Your task to perform on an android device: Open Chrome and go to settings Image 0: 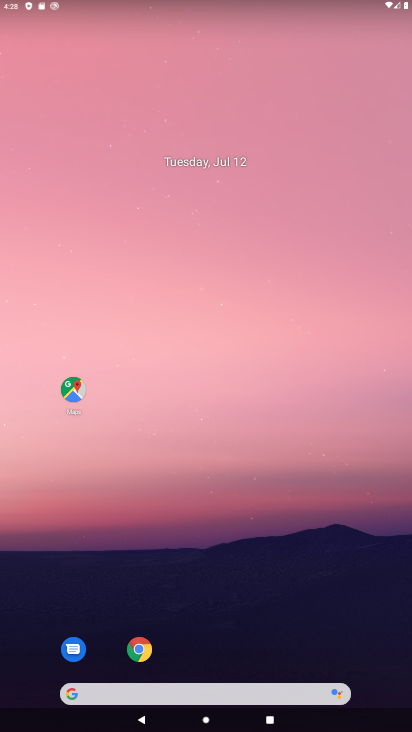
Step 0: press home button
Your task to perform on an android device: Open Chrome and go to settings Image 1: 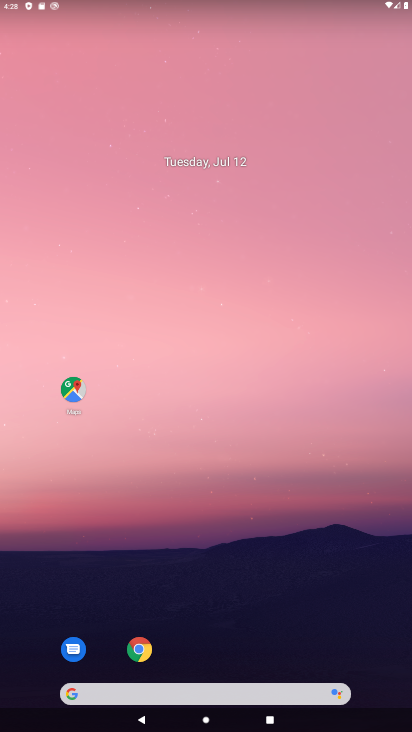
Step 1: click (141, 651)
Your task to perform on an android device: Open Chrome and go to settings Image 2: 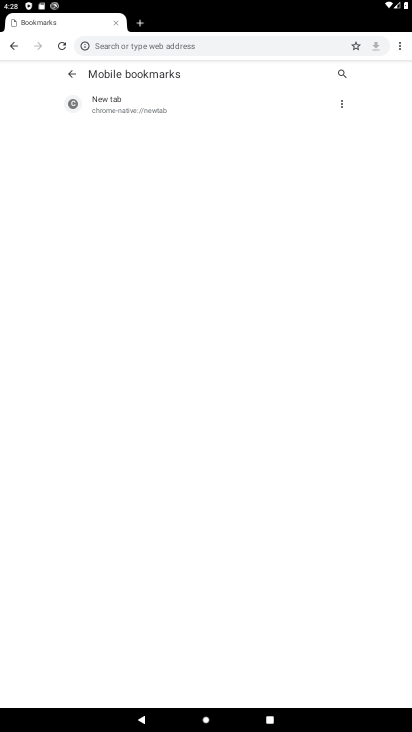
Step 2: click (399, 47)
Your task to perform on an android device: Open Chrome and go to settings Image 3: 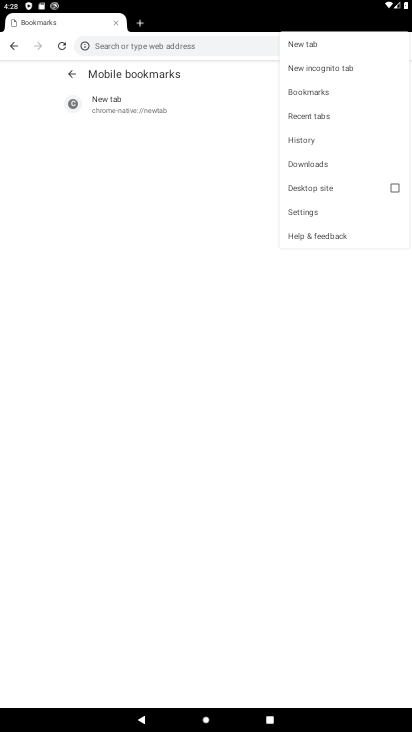
Step 3: click (310, 216)
Your task to perform on an android device: Open Chrome and go to settings Image 4: 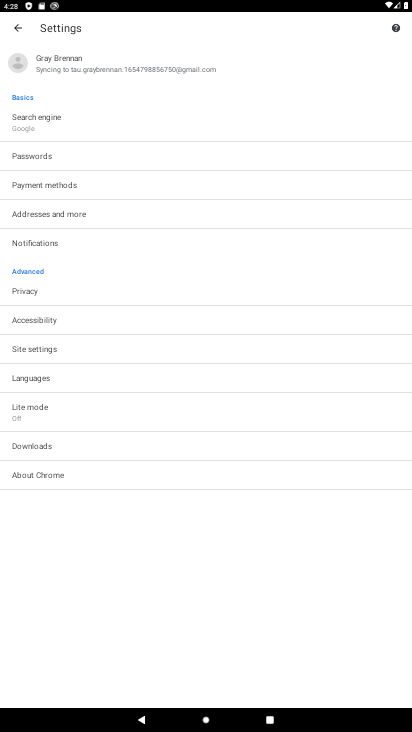
Step 4: task complete